Your task to perform on an android device: open chrome and create a bookmark for the current page Image 0: 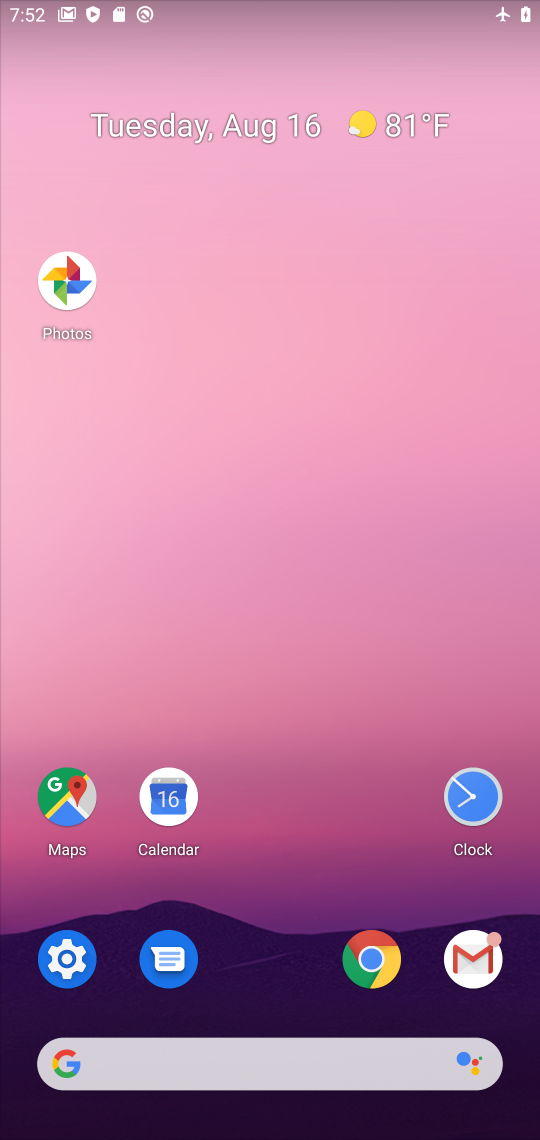
Step 0: click (363, 959)
Your task to perform on an android device: open chrome and create a bookmark for the current page Image 1: 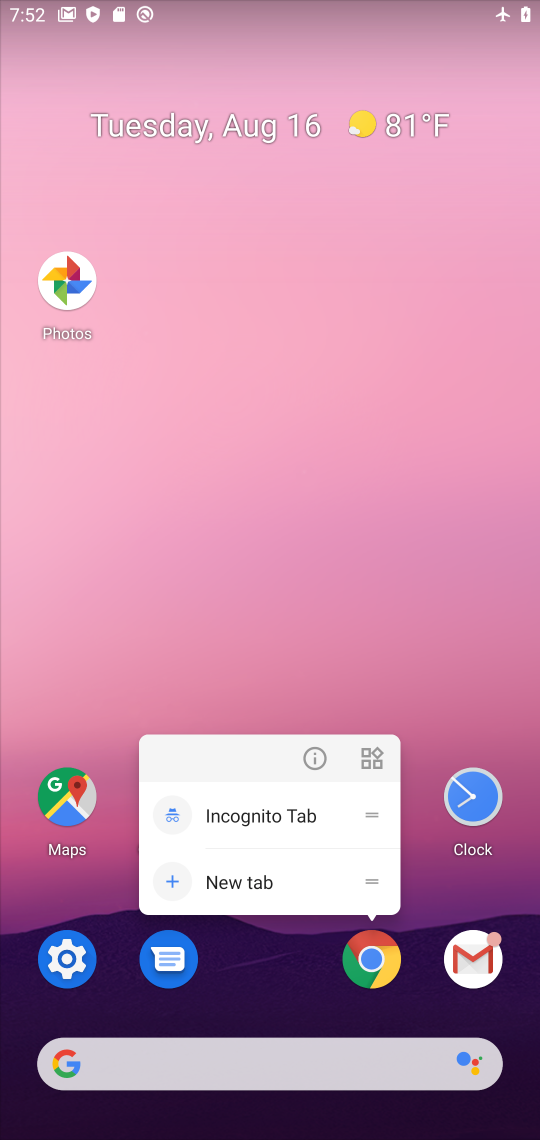
Step 1: click (363, 959)
Your task to perform on an android device: open chrome and create a bookmark for the current page Image 2: 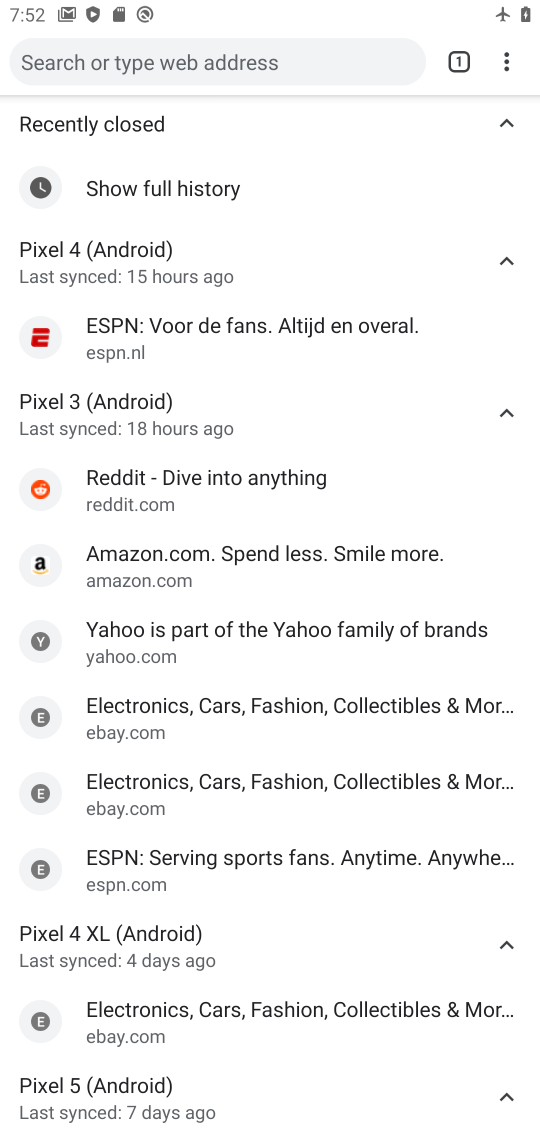
Step 2: click (503, 63)
Your task to perform on an android device: open chrome and create a bookmark for the current page Image 3: 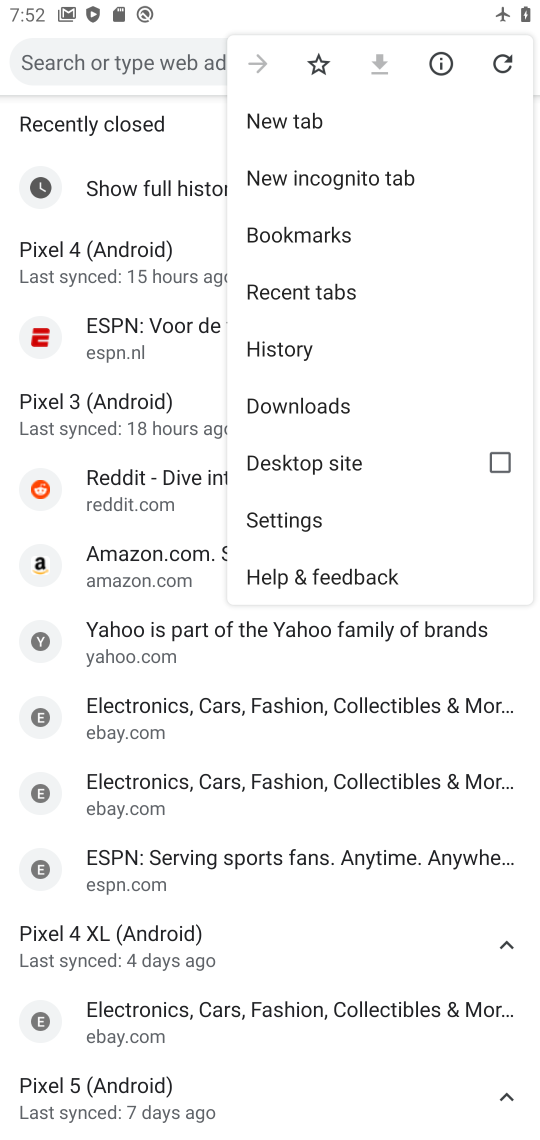
Step 3: click (314, 69)
Your task to perform on an android device: open chrome and create a bookmark for the current page Image 4: 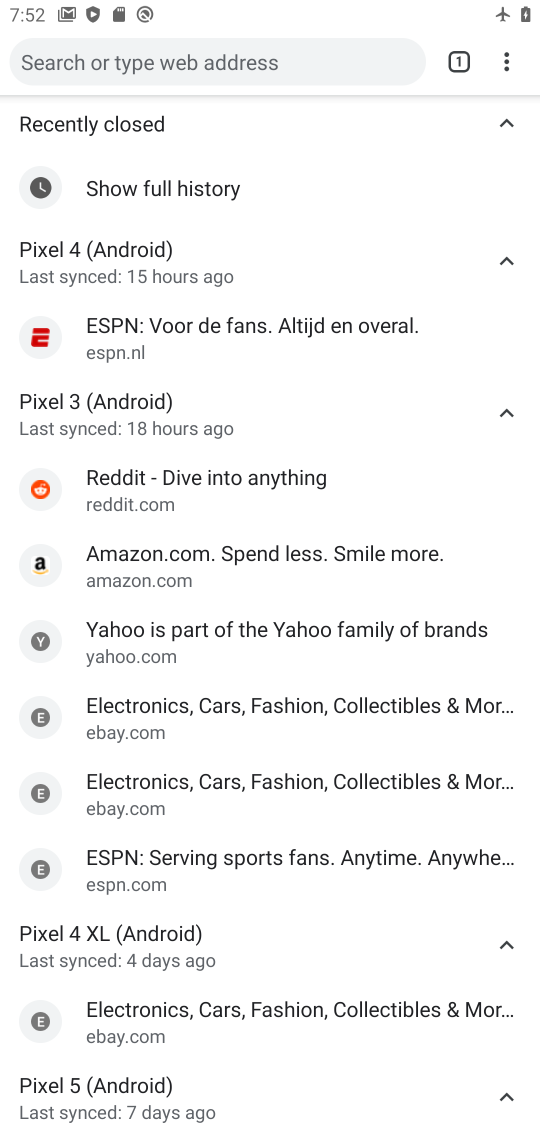
Step 4: task complete